Your task to perform on an android device: Show me recent news Image 0: 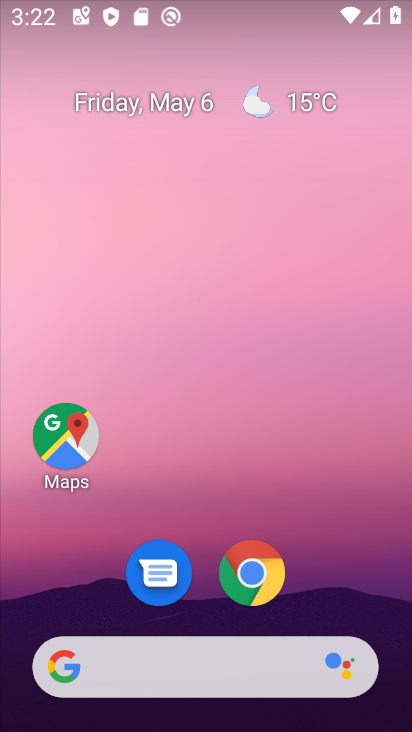
Step 0: drag from (201, 566) to (200, 256)
Your task to perform on an android device: Show me recent news Image 1: 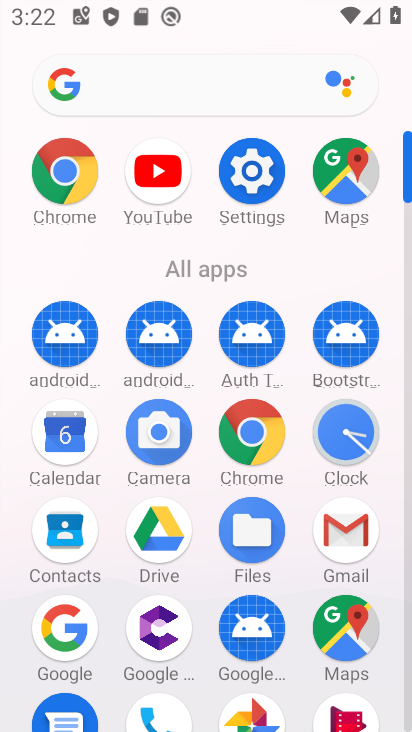
Step 1: drag from (195, 639) to (203, 215)
Your task to perform on an android device: Show me recent news Image 2: 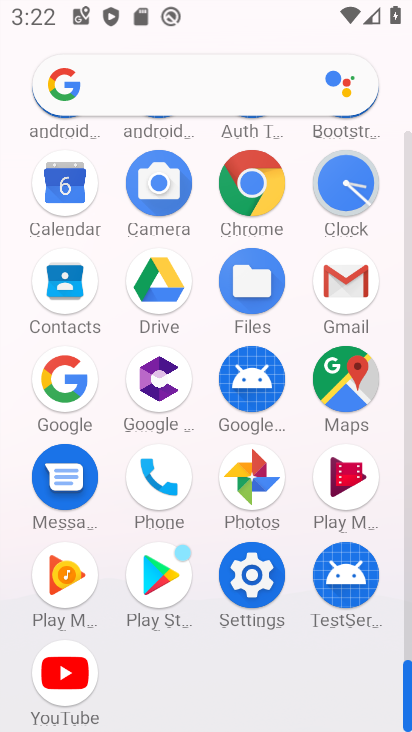
Step 2: drag from (198, 690) to (201, 322)
Your task to perform on an android device: Show me recent news Image 3: 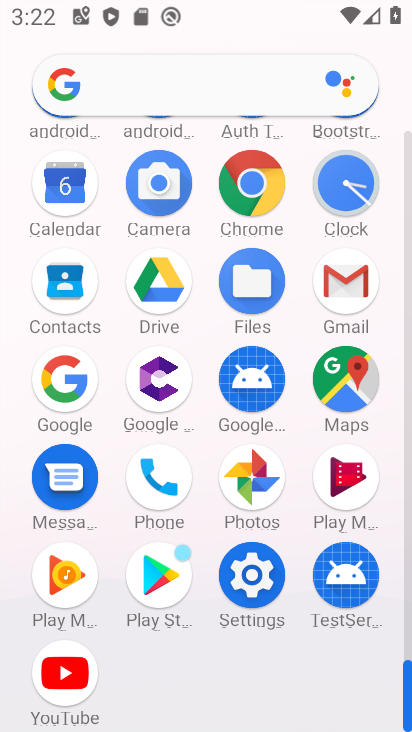
Step 3: drag from (215, 672) to (180, 316)
Your task to perform on an android device: Show me recent news Image 4: 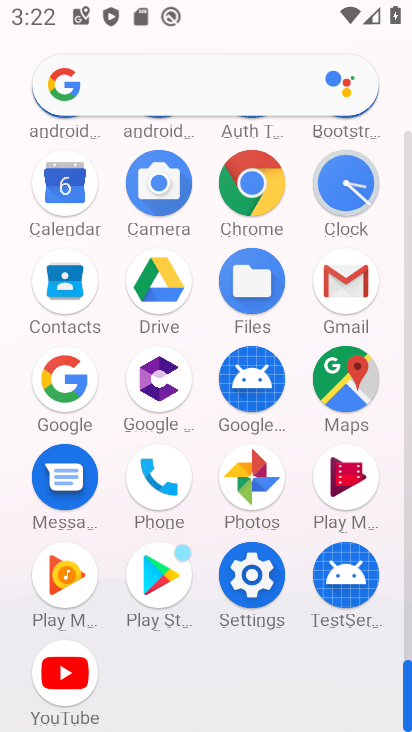
Step 4: drag from (199, 680) to (185, 311)
Your task to perform on an android device: Show me recent news Image 5: 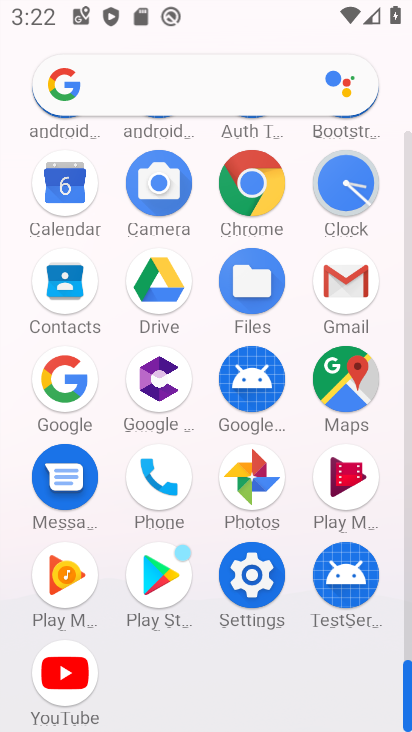
Step 5: drag from (206, 647) to (194, 372)
Your task to perform on an android device: Show me recent news Image 6: 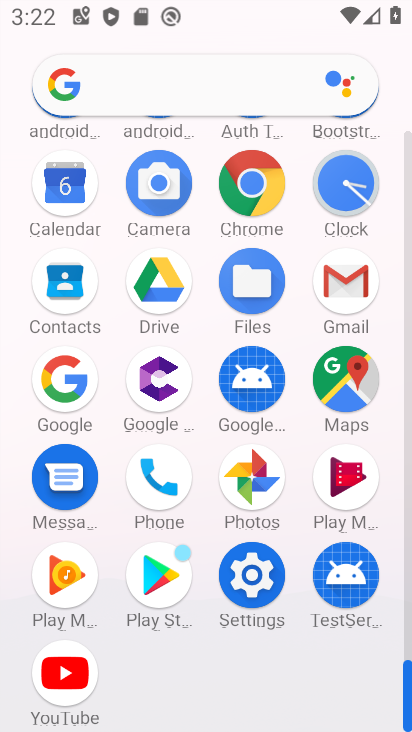
Step 6: click (253, 177)
Your task to perform on an android device: Show me recent news Image 7: 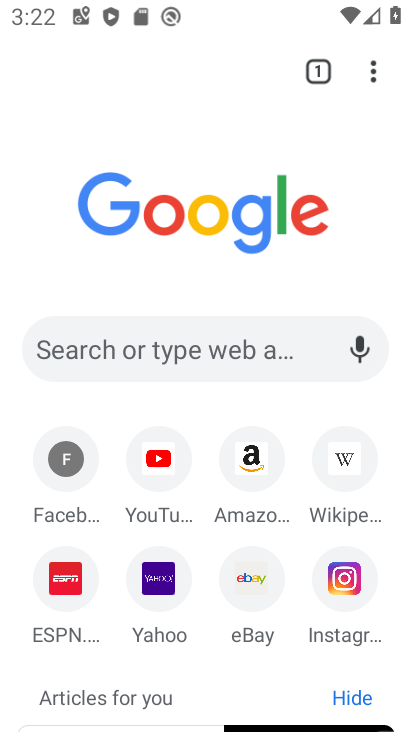
Step 7: click (198, 343)
Your task to perform on an android device: Show me recent news Image 8: 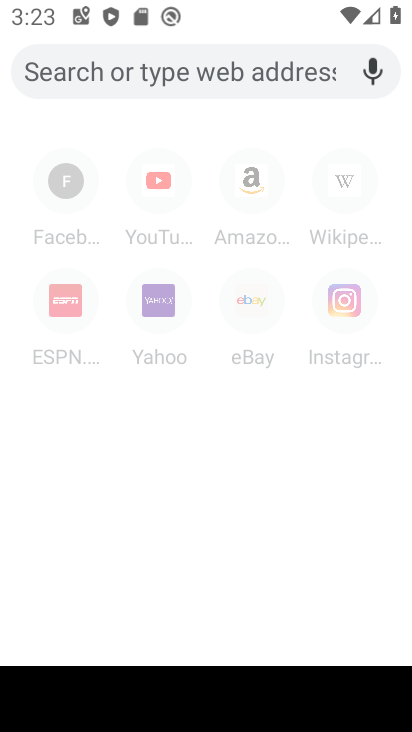
Step 8: type "recent news"
Your task to perform on an android device: Show me recent news Image 9: 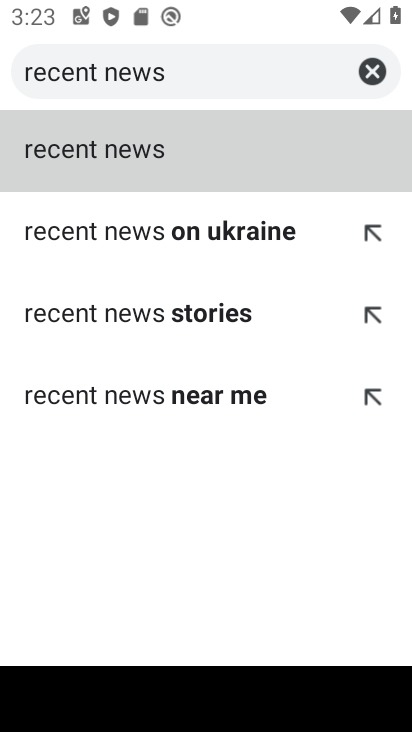
Step 9: click (99, 146)
Your task to perform on an android device: Show me recent news Image 10: 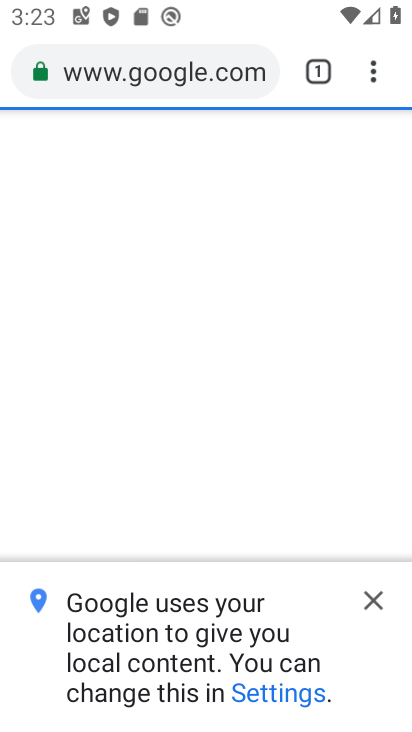
Step 10: drag from (202, 502) to (242, 105)
Your task to perform on an android device: Show me recent news Image 11: 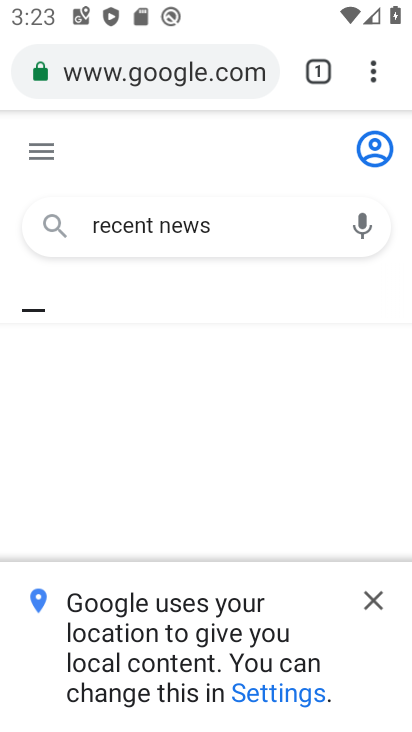
Step 11: click (372, 610)
Your task to perform on an android device: Show me recent news Image 12: 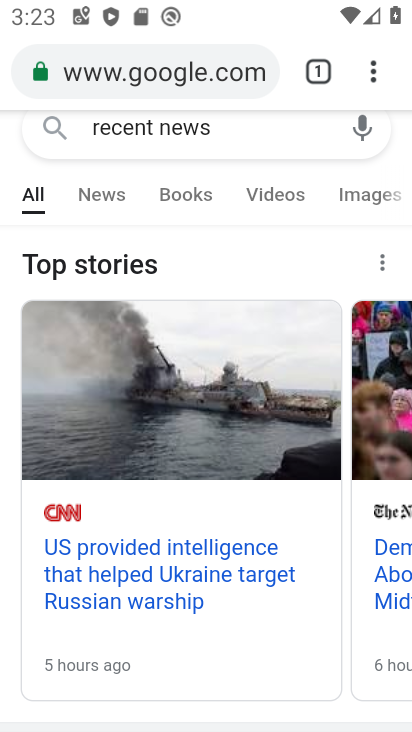
Step 12: drag from (233, 624) to (302, 216)
Your task to perform on an android device: Show me recent news Image 13: 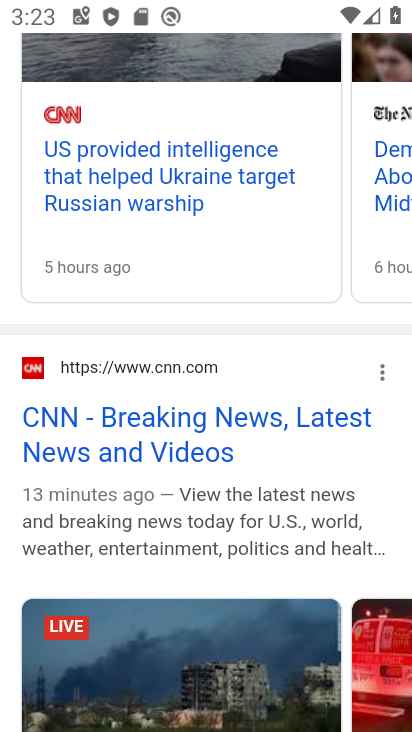
Step 13: drag from (239, 521) to (306, 93)
Your task to perform on an android device: Show me recent news Image 14: 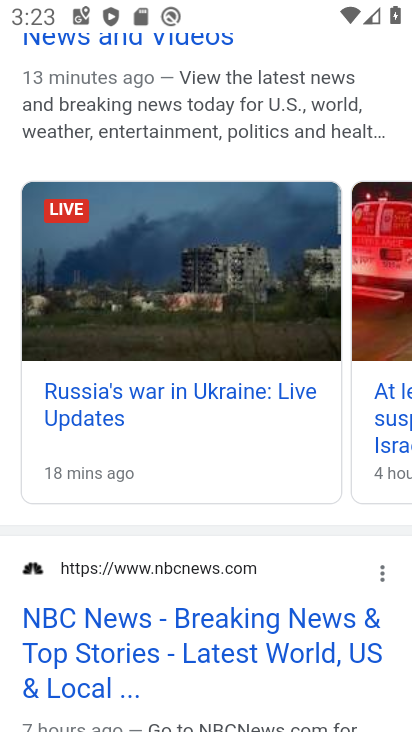
Step 14: drag from (211, 99) to (218, 424)
Your task to perform on an android device: Show me recent news Image 15: 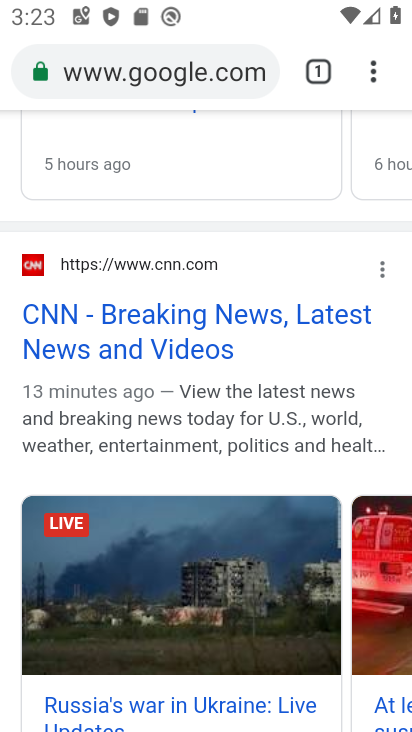
Step 15: drag from (199, 557) to (307, 161)
Your task to perform on an android device: Show me recent news Image 16: 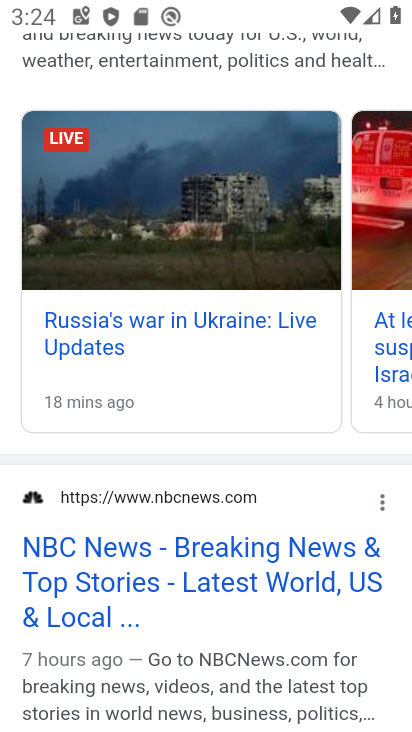
Step 16: drag from (166, 648) to (298, 284)
Your task to perform on an android device: Show me recent news Image 17: 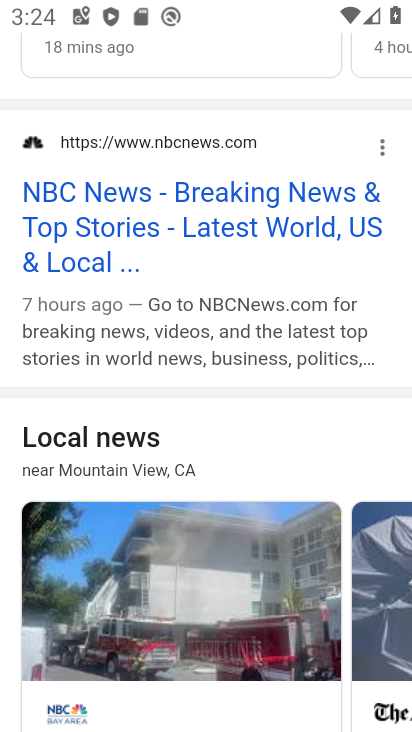
Step 17: drag from (275, 359) to (285, 301)
Your task to perform on an android device: Show me recent news Image 18: 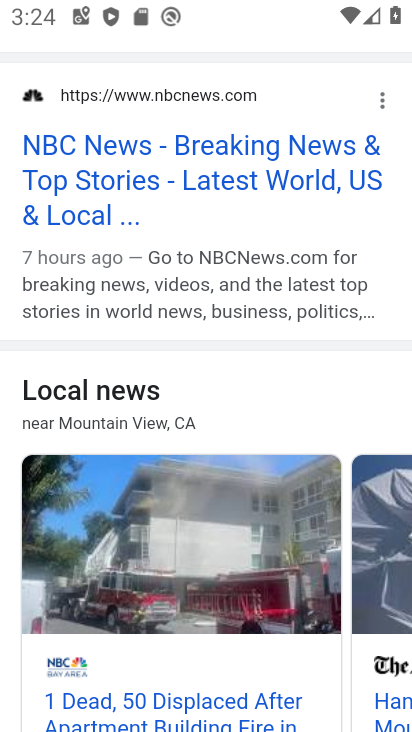
Step 18: drag from (167, 604) to (254, 192)
Your task to perform on an android device: Show me recent news Image 19: 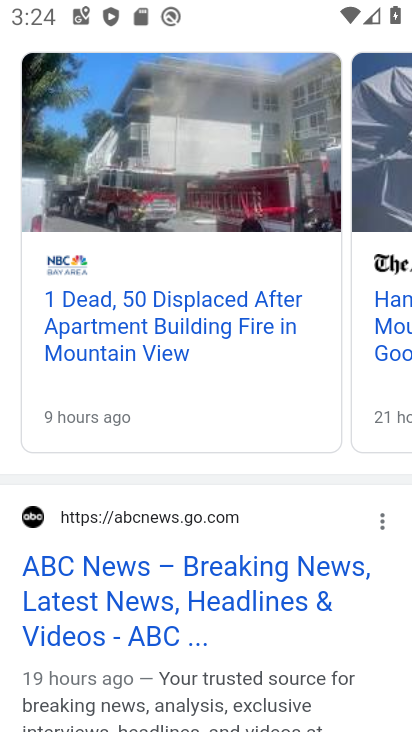
Step 19: drag from (183, 496) to (263, 164)
Your task to perform on an android device: Show me recent news Image 20: 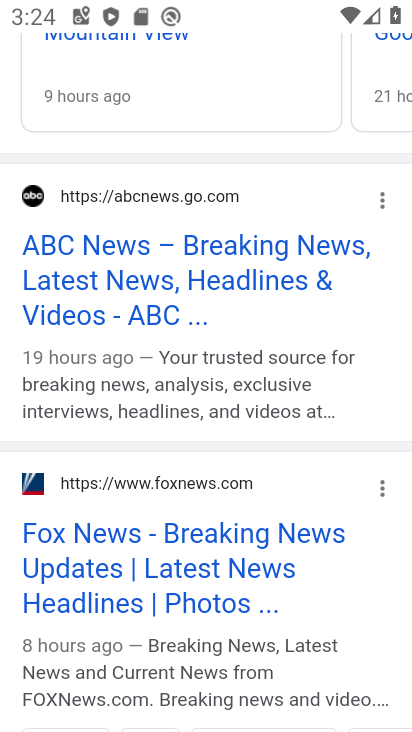
Step 20: drag from (197, 614) to (254, 345)
Your task to perform on an android device: Show me recent news Image 21: 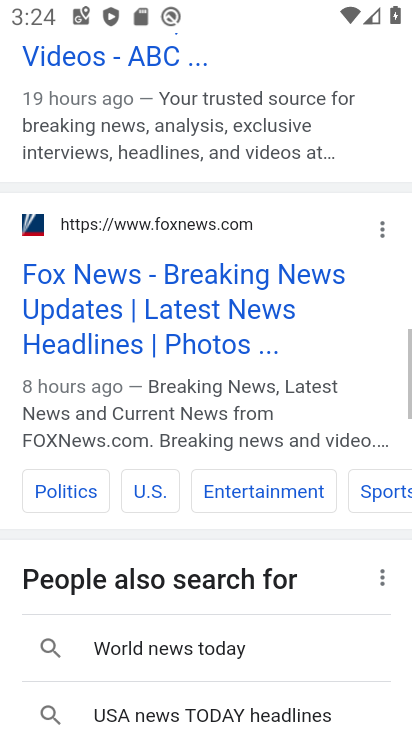
Step 21: drag from (251, 43) to (238, 607)
Your task to perform on an android device: Show me recent news Image 22: 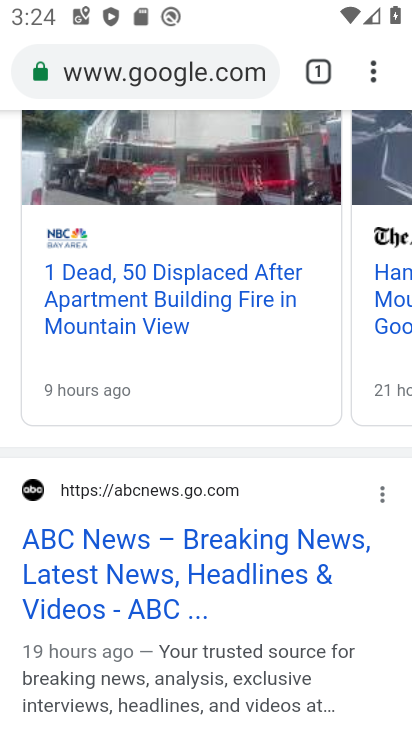
Step 22: click (124, 605)
Your task to perform on an android device: Show me recent news Image 23: 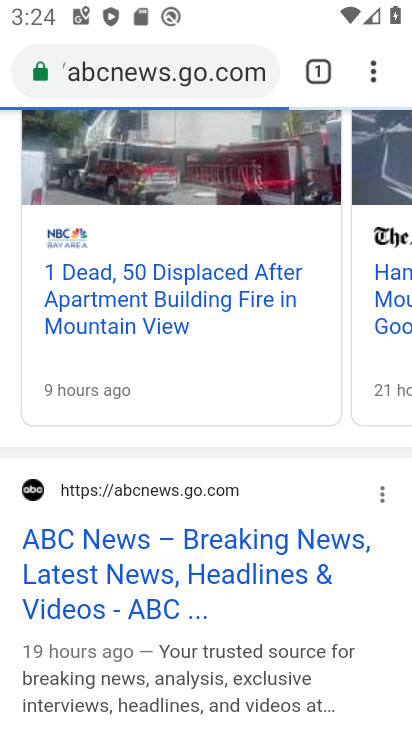
Step 23: task complete